Your task to perform on an android device: turn on data saver in the chrome app Image 0: 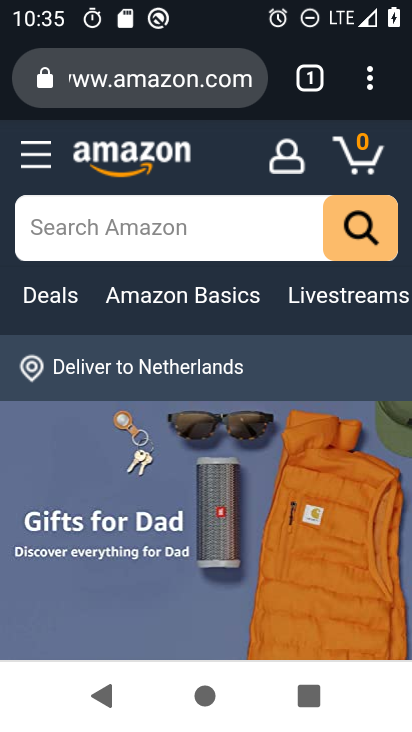
Step 0: click (373, 86)
Your task to perform on an android device: turn on data saver in the chrome app Image 1: 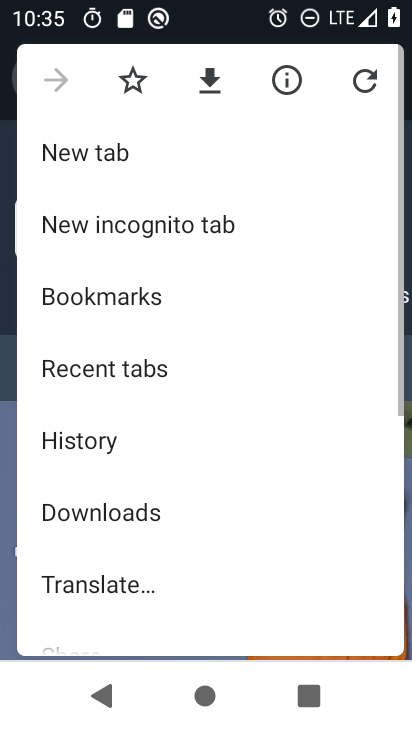
Step 1: drag from (207, 473) to (198, 27)
Your task to perform on an android device: turn on data saver in the chrome app Image 2: 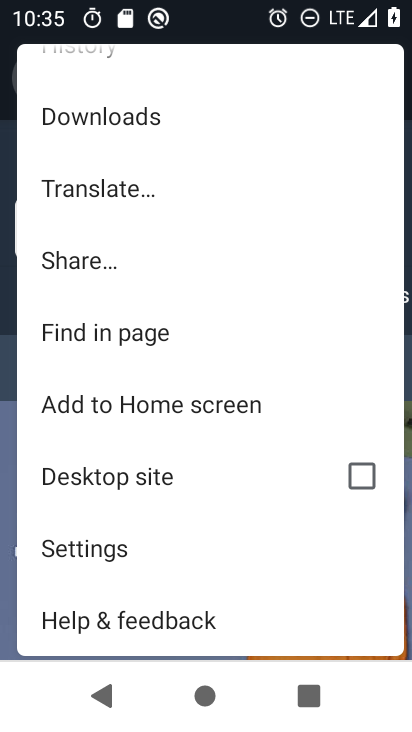
Step 2: click (107, 549)
Your task to perform on an android device: turn on data saver in the chrome app Image 3: 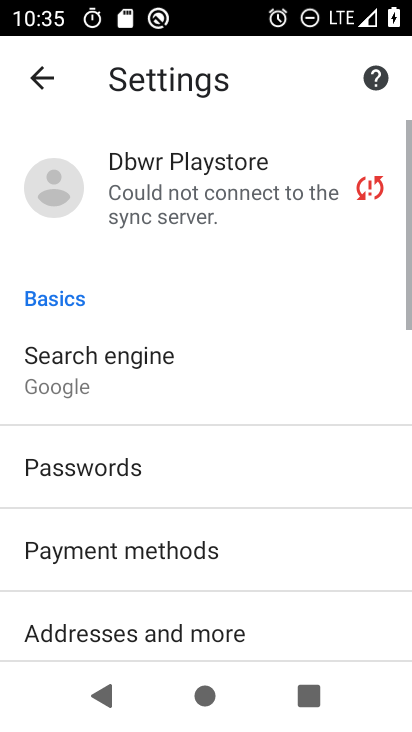
Step 3: drag from (239, 592) to (214, 84)
Your task to perform on an android device: turn on data saver in the chrome app Image 4: 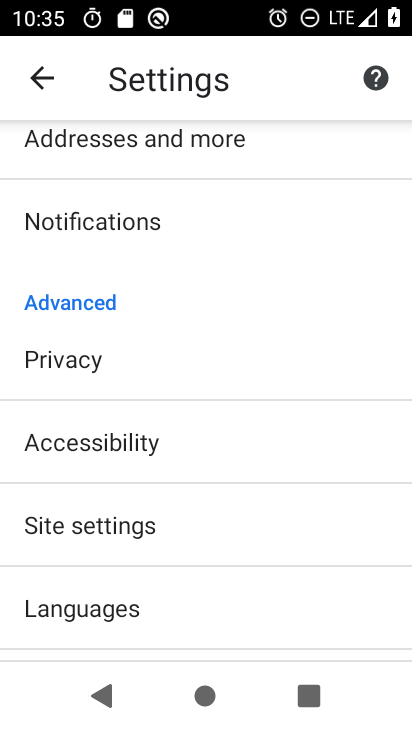
Step 4: drag from (275, 590) to (270, 206)
Your task to perform on an android device: turn on data saver in the chrome app Image 5: 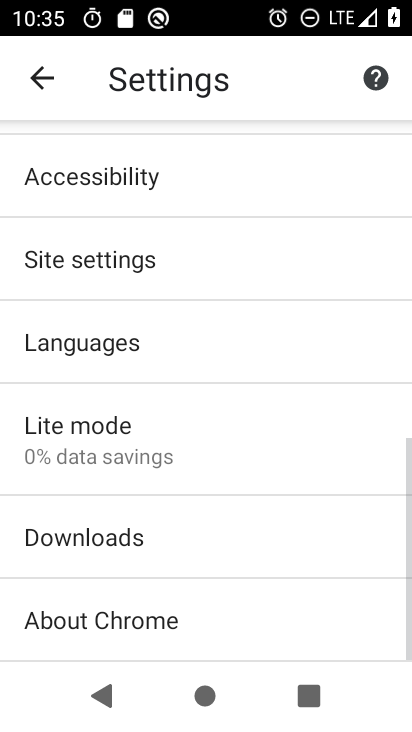
Step 5: click (84, 457)
Your task to perform on an android device: turn on data saver in the chrome app Image 6: 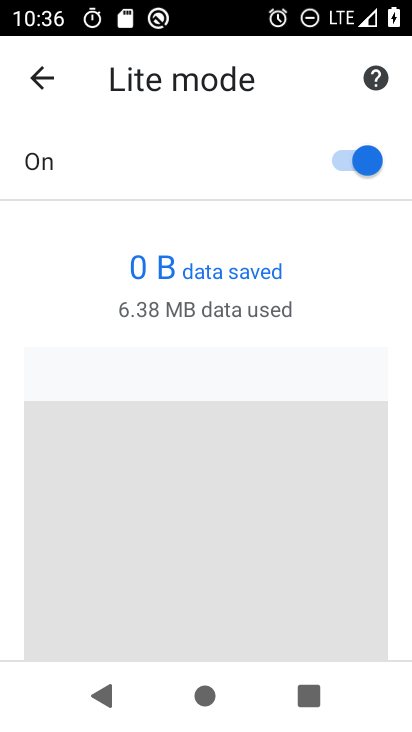
Step 6: task complete